Your task to perform on an android device: Empty the shopping cart on target. Add "razer blade" to the cart on target Image 0: 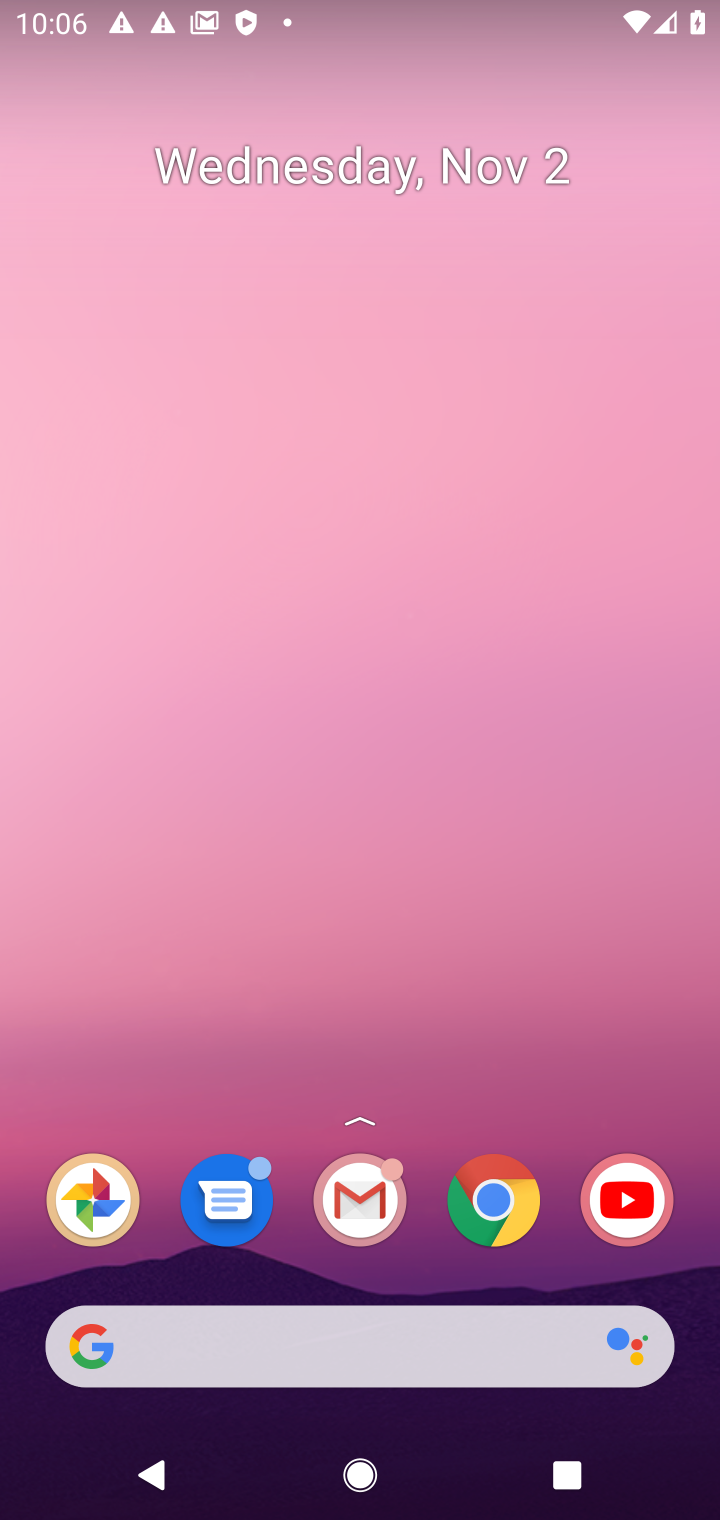
Step 0: click (495, 1189)
Your task to perform on an android device: Empty the shopping cart on target. Add "razer blade" to the cart on target Image 1: 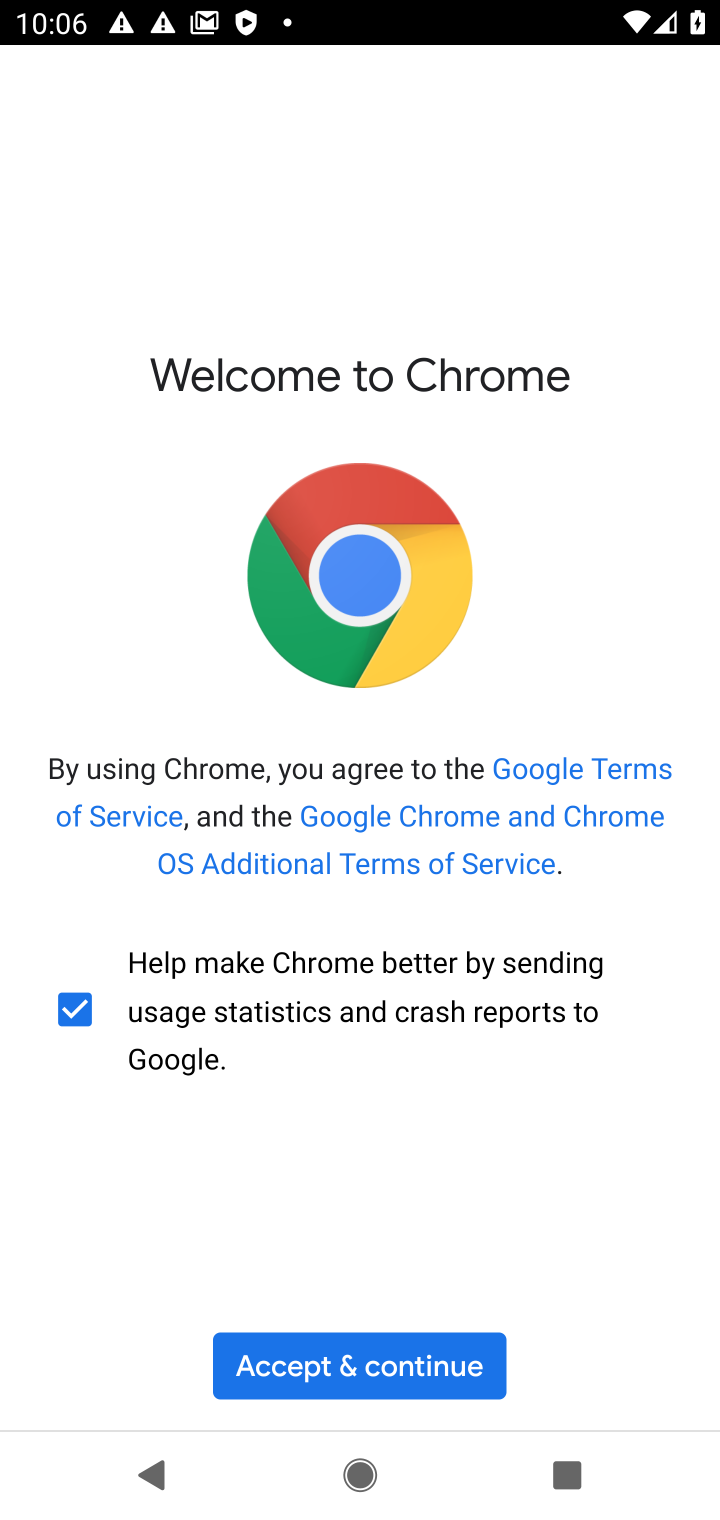
Step 1: click (409, 1367)
Your task to perform on an android device: Empty the shopping cart on target. Add "razer blade" to the cart on target Image 2: 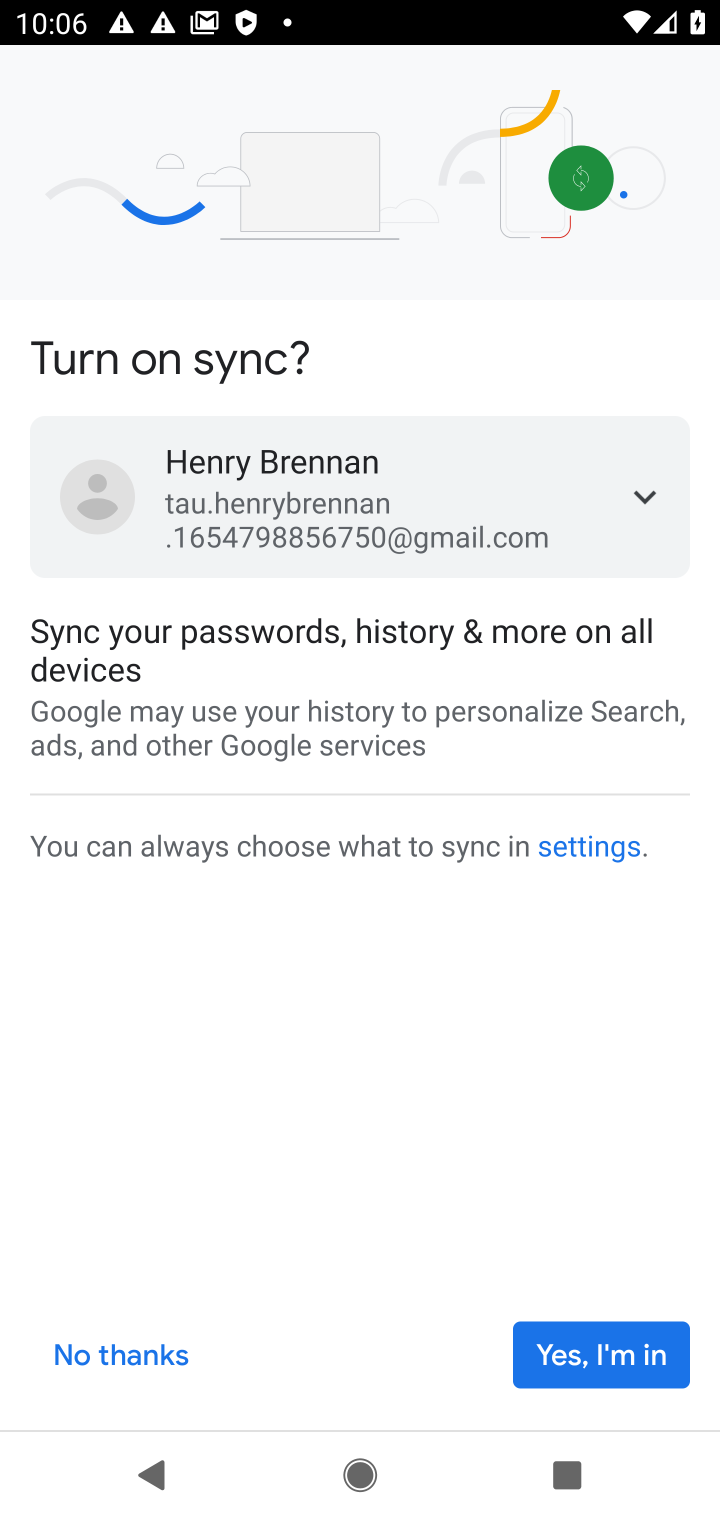
Step 2: click (612, 1344)
Your task to perform on an android device: Empty the shopping cart on target. Add "razer blade" to the cart on target Image 3: 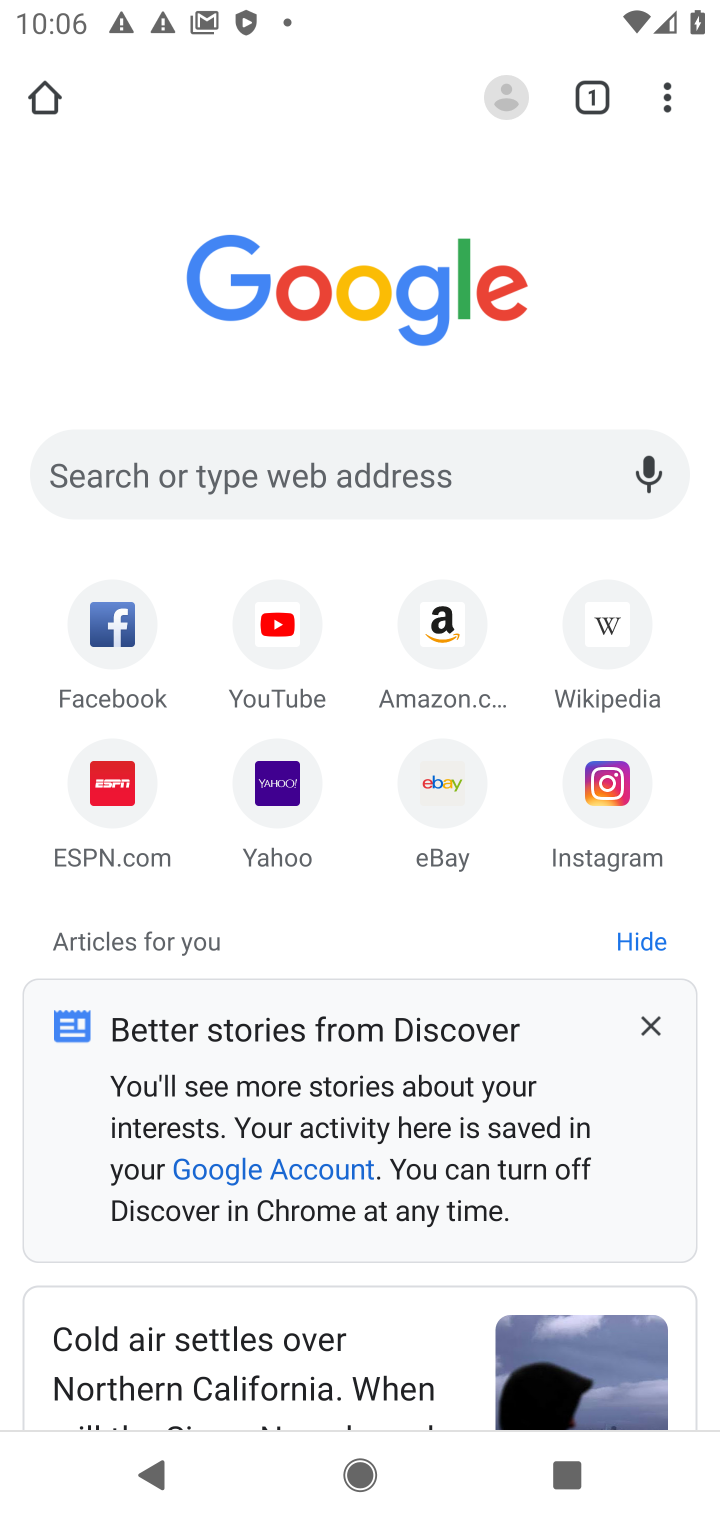
Step 3: click (291, 474)
Your task to perform on an android device: Empty the shopping cart on target. Add "razer blade" to the cart on target Image 4: 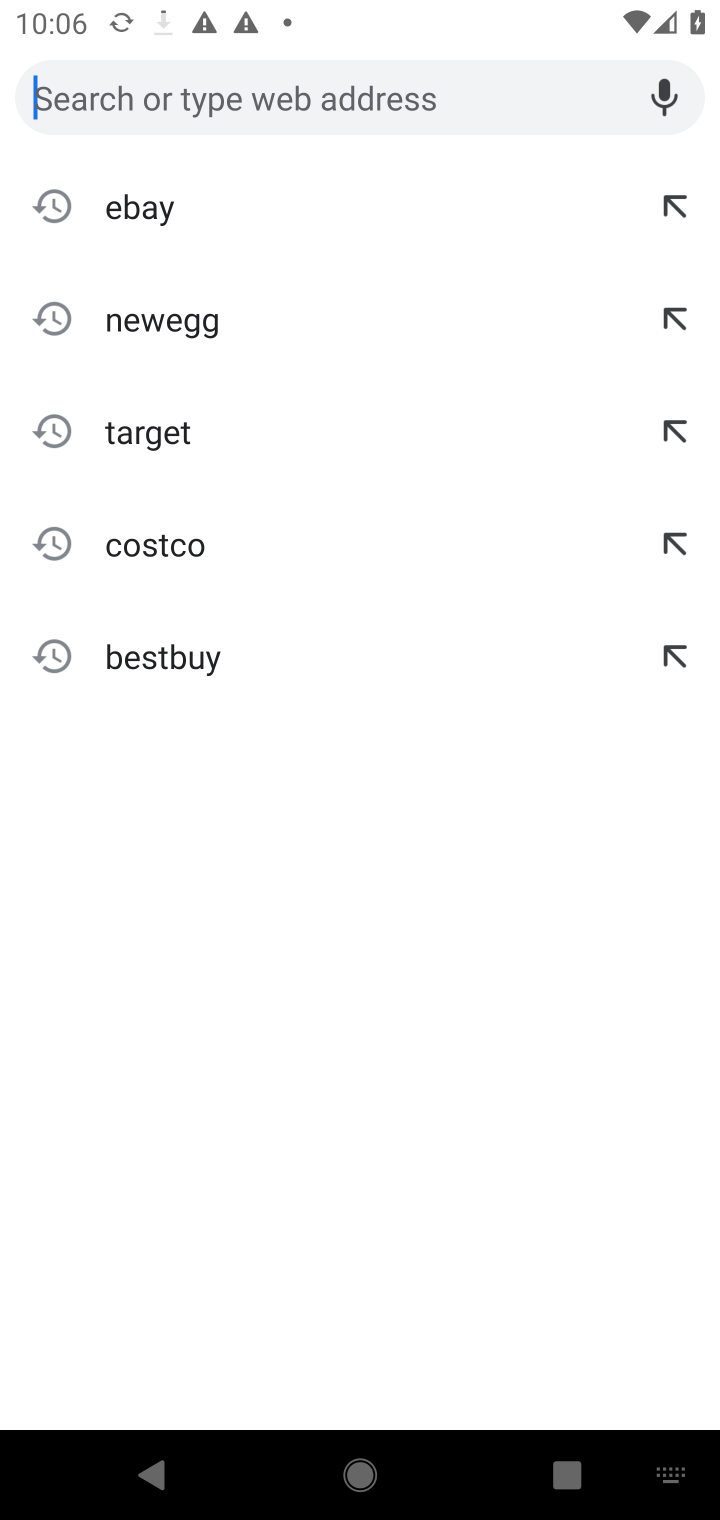
Step 4: click (178, 435)
Your task to perform on an android device: Empty the shopping cart on target. Add "razer blade" to the cart on target Image 5: 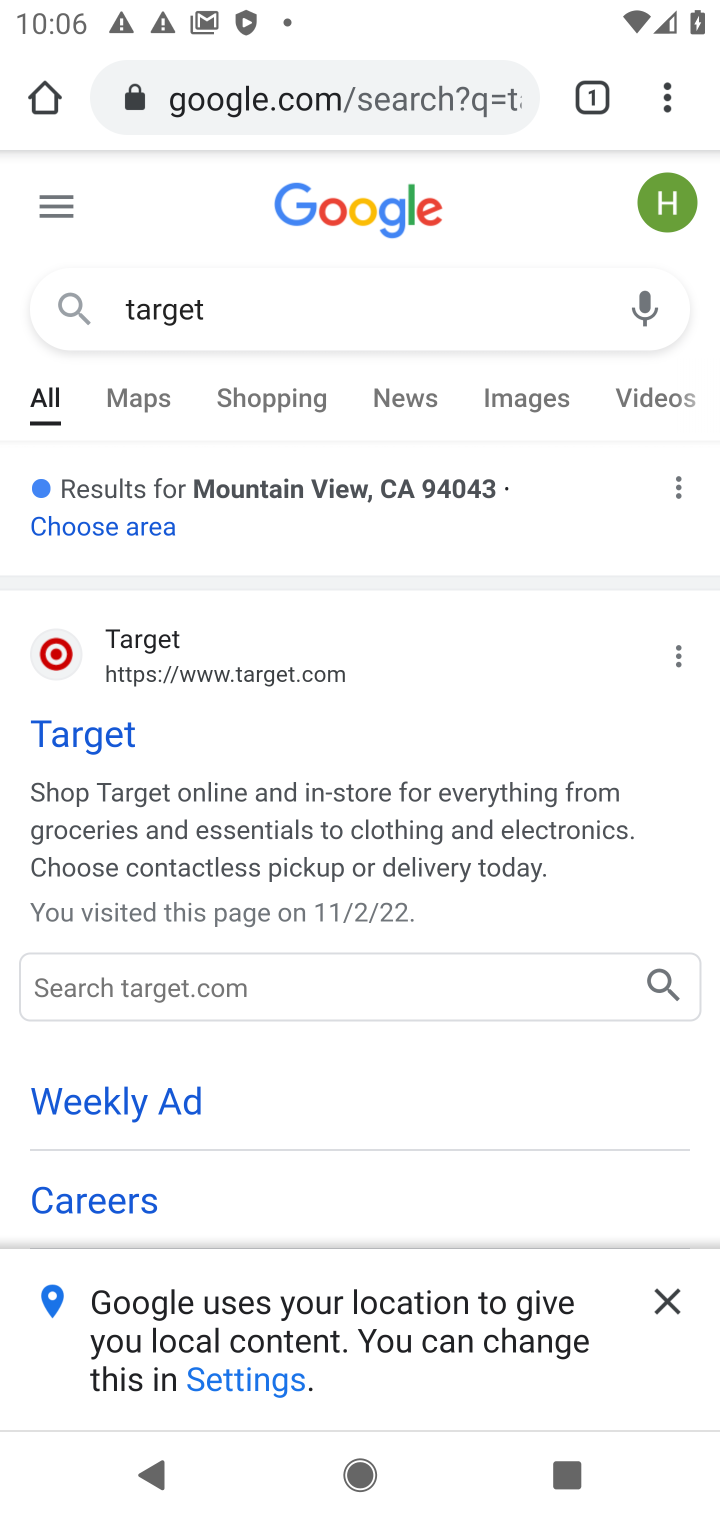
Step 5: click (157, 663)
Your task to perform on an android device: Empty the shopping cart on target. Add "razer blade" to the cart on target Image 6: 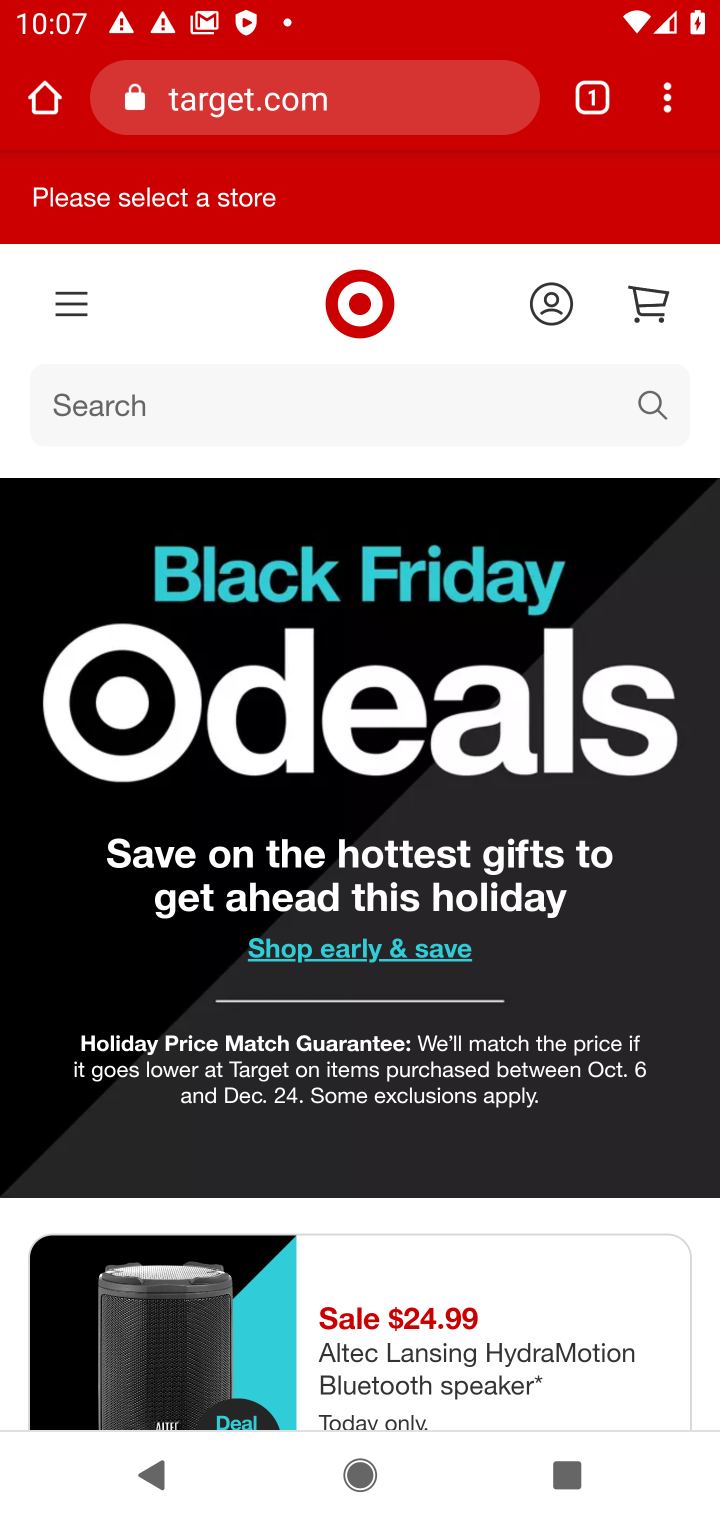
Step 6: click (643, 310)
Your task to perform on an android device: Empty the shopping cart on target. Add "razer blade" to the cart on target Image 7: 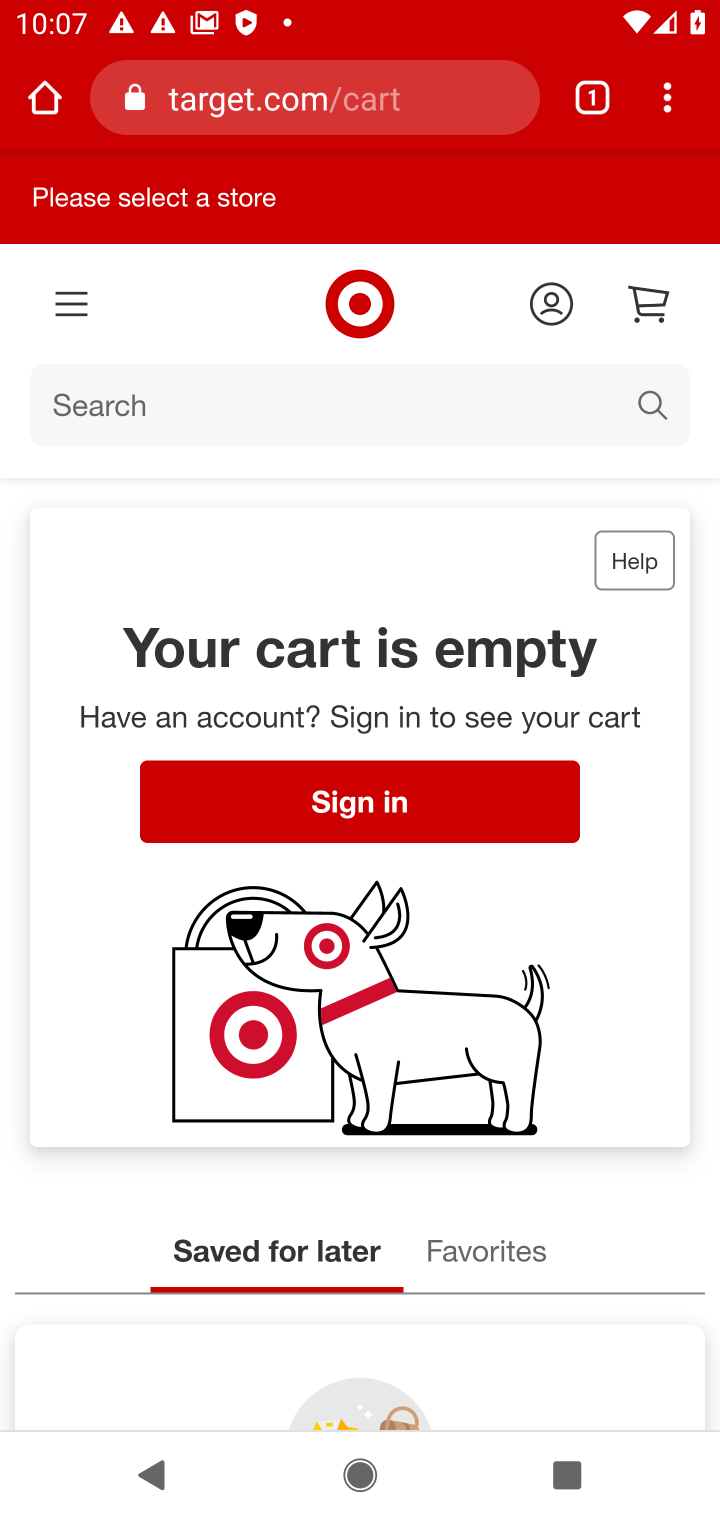
Step 7: click (375, 405)
Your task to perform on an android device: Empty the shopping cart on target. Add "razer blade" to the cart on target Image 8: 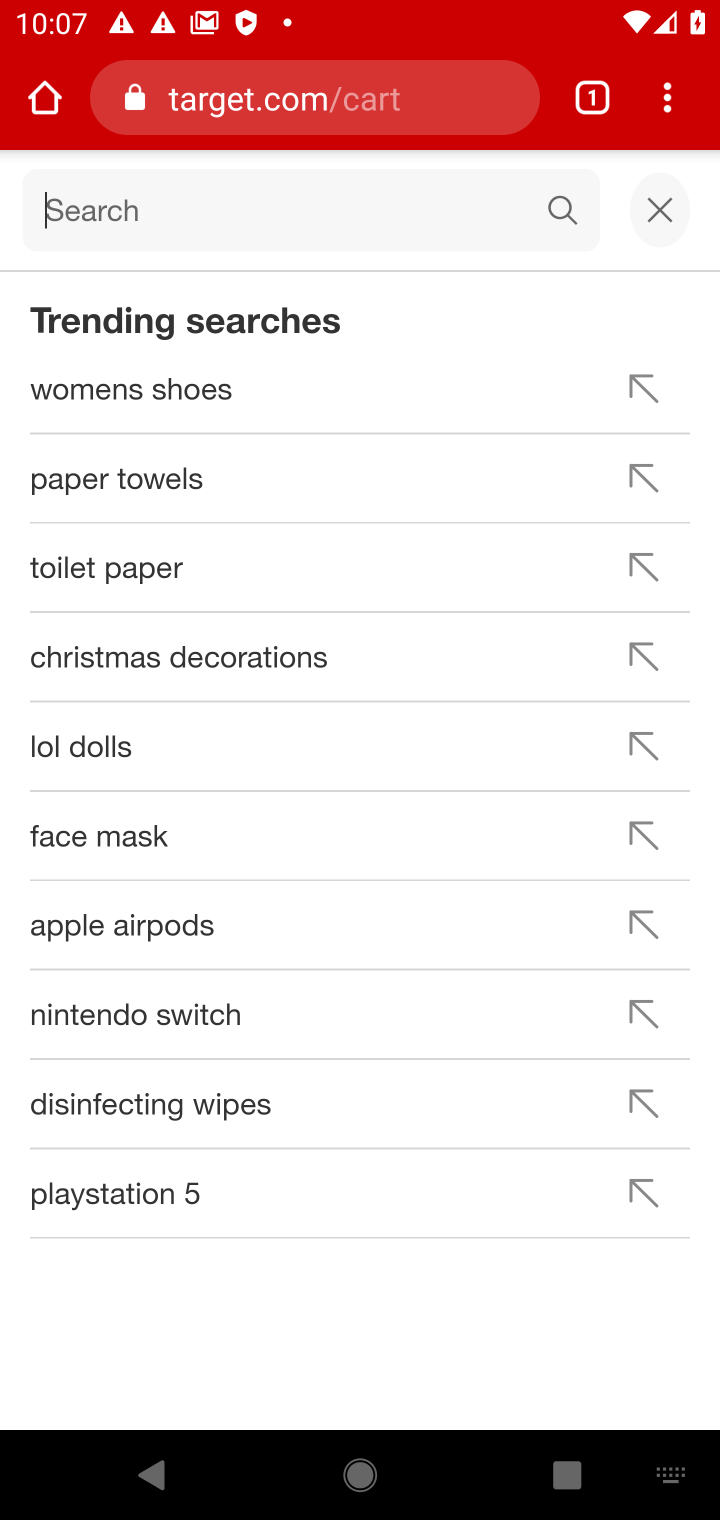
Step 8: type "razer blade"
Your task to perform on an android device: Empty the shopping cart on target. Add "razer blade" to the cart on target Image 9: 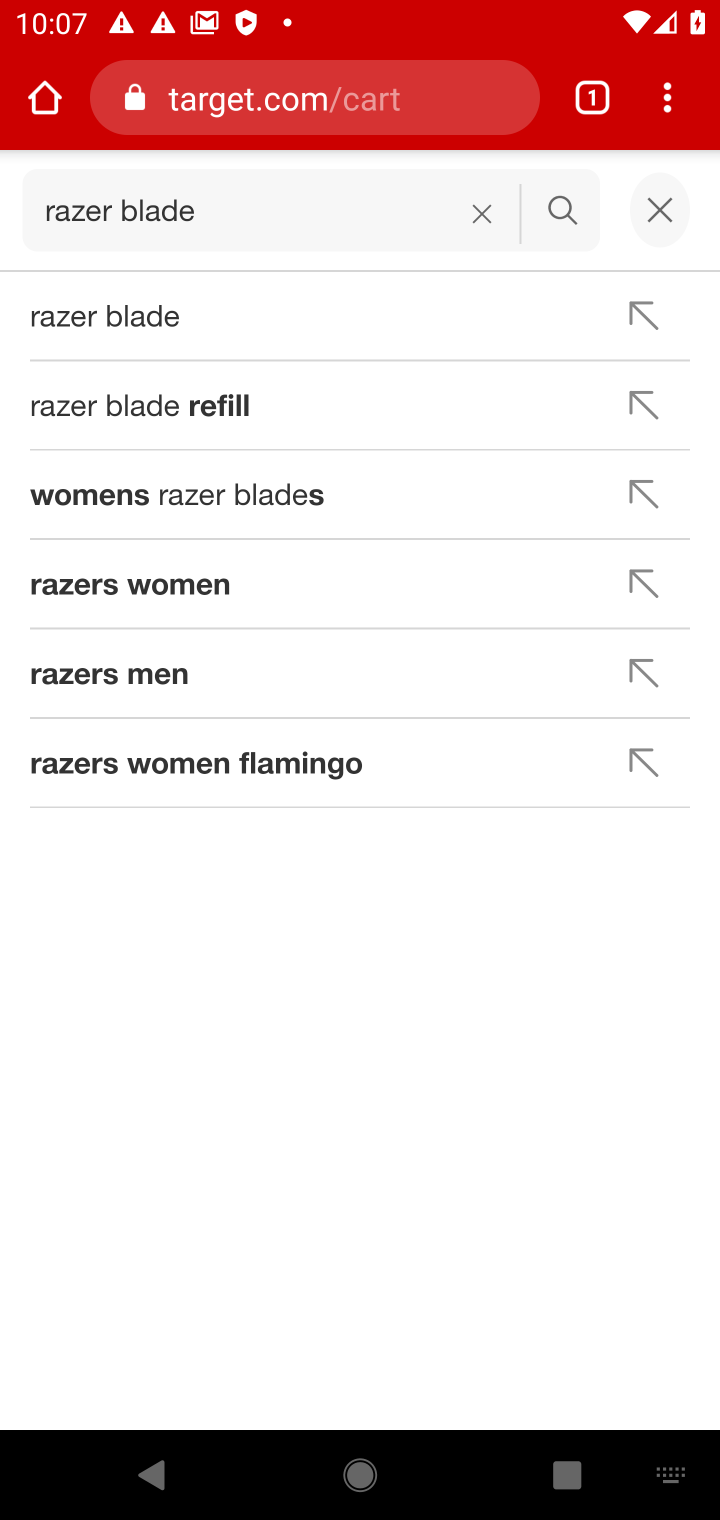
Step 9: click (165, 313)
Your task to perform on an android device: Empty the shopping cart on target. Add "razer blade" to the cart on target Image 10: 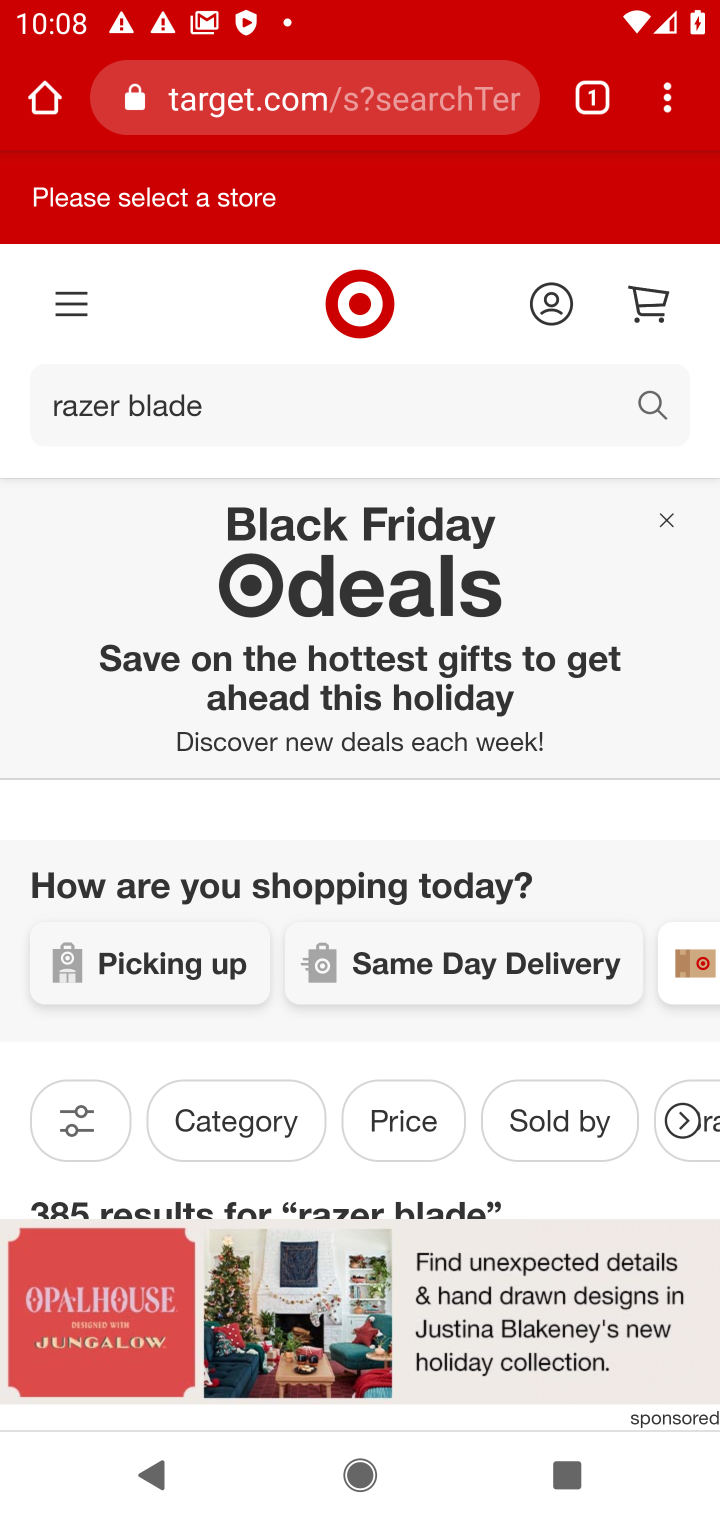
Step 10: drag from (490, 1047) to (538, 314)
Your task to perform on an android device: Empty the shopping cart on target. Add "razer blade" to the cart on target Image 11: 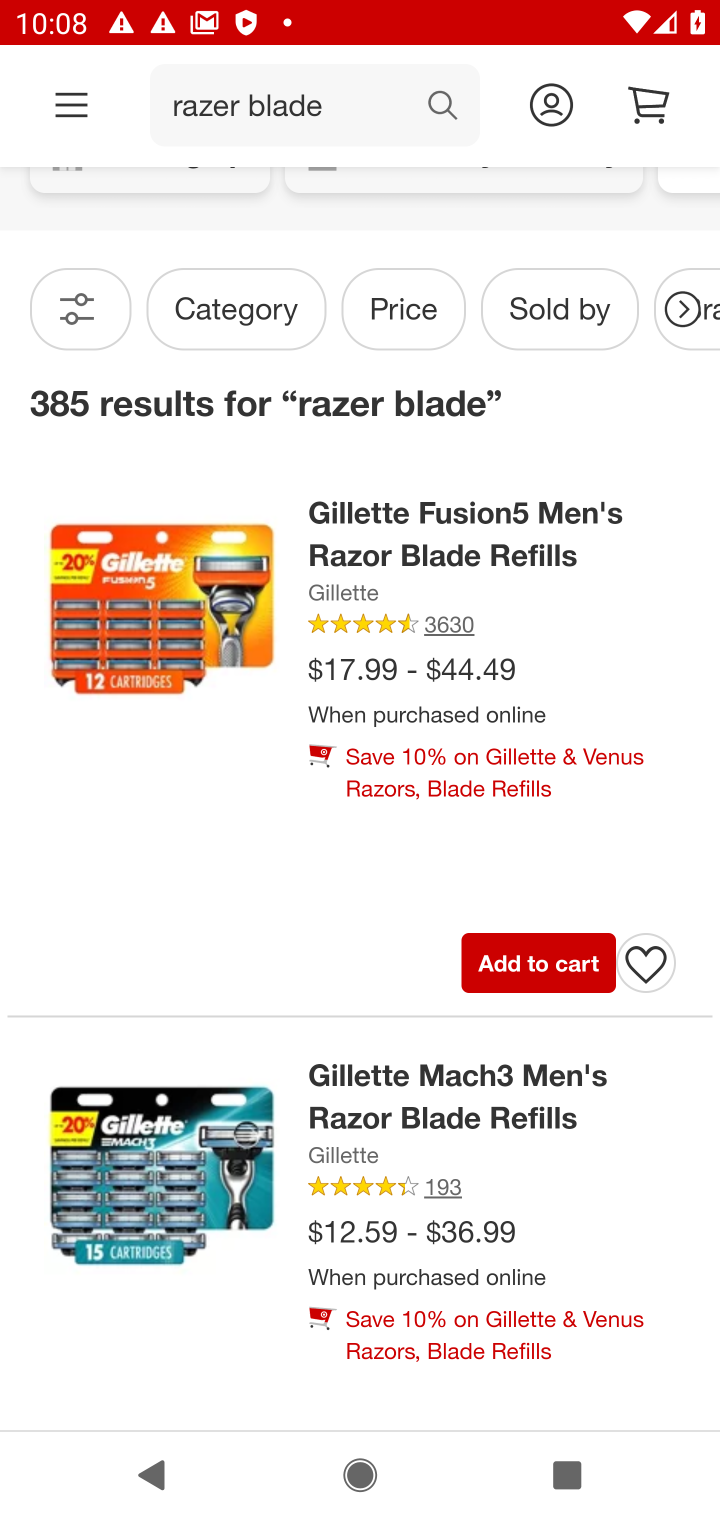
Step 11: click (134, 620)
Your task to perform on an android device: Empty the shopping cart on target. Add "razer blade" to the cart on target Image 12: 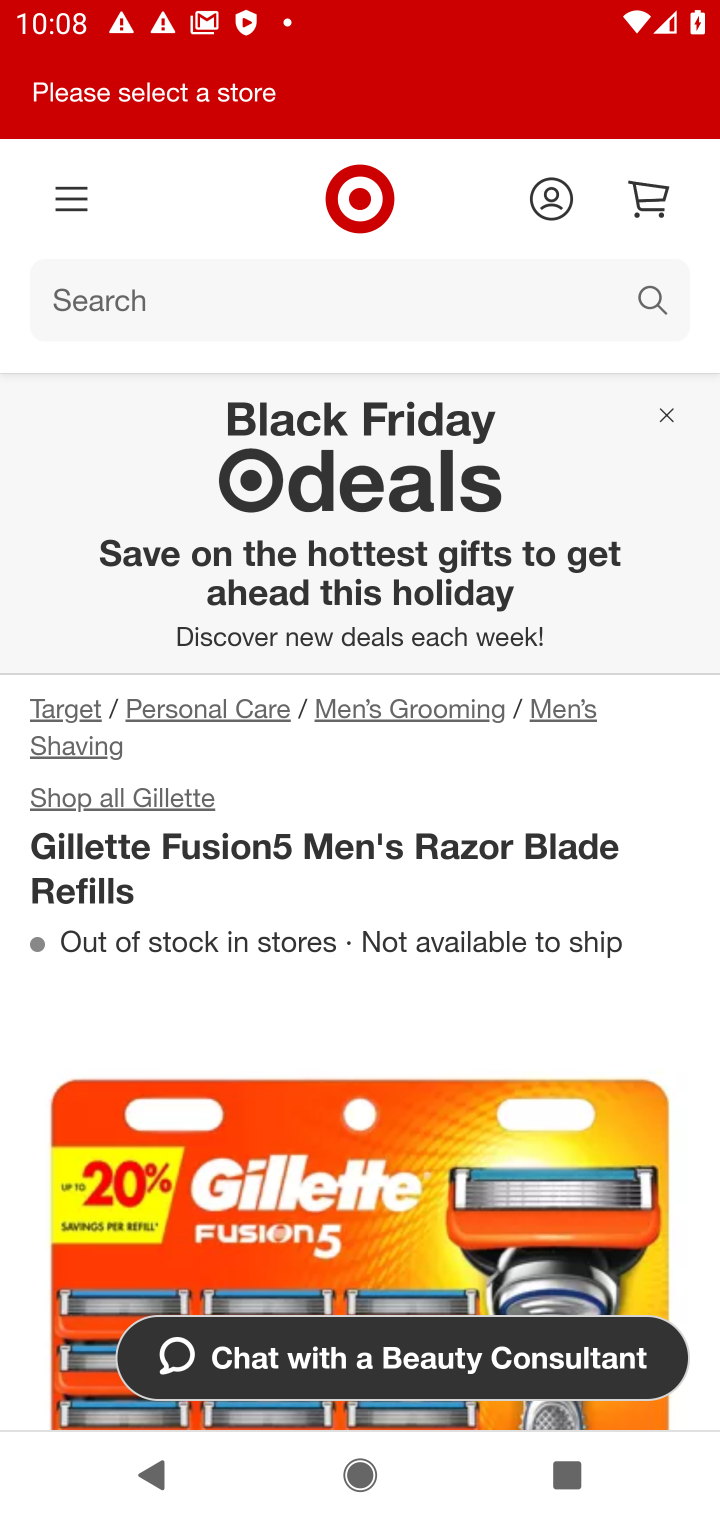
Step 12: drag from (502, 1081) to (511, 287)
Your task to perform on an android device: Empty the shopping cart on target. Add "razer blade" to the cart on target Image 13: 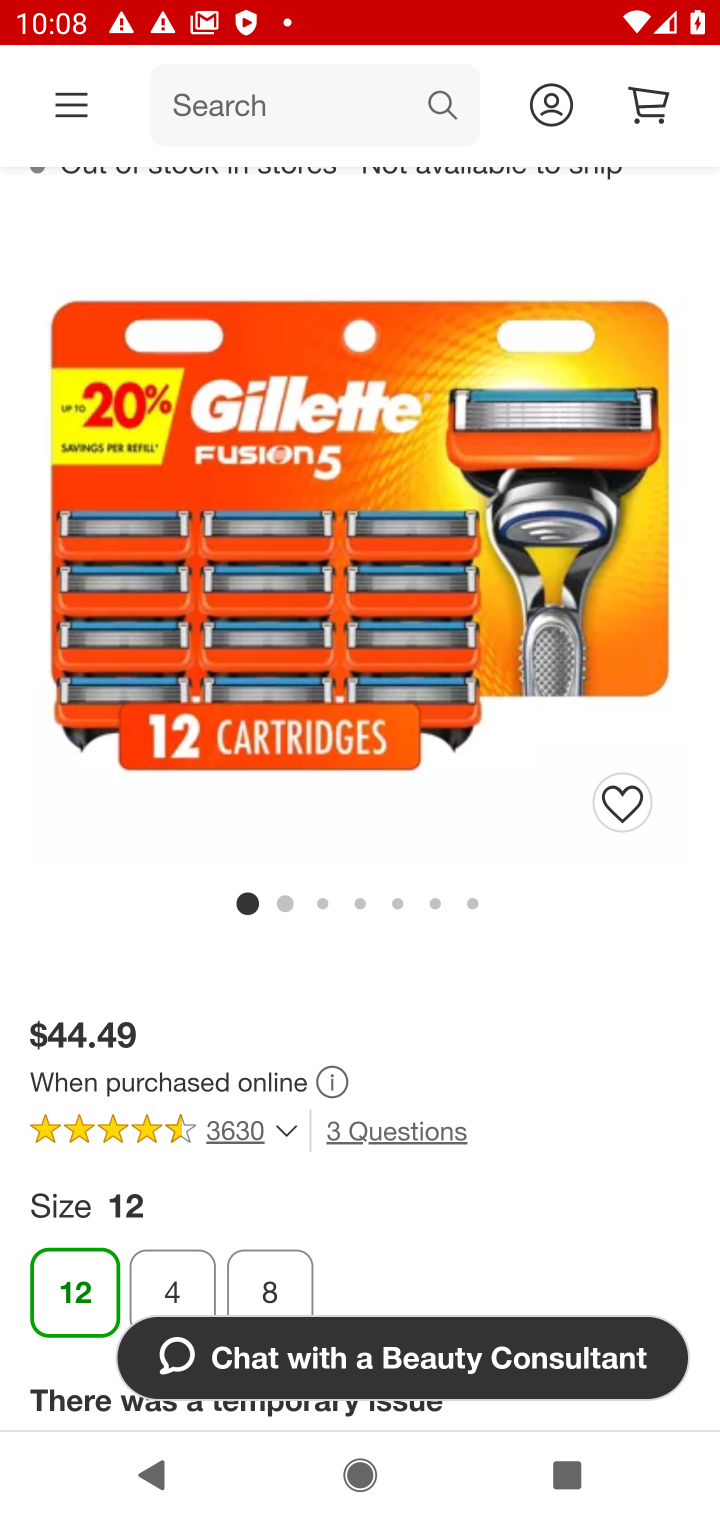
Step 13: drag from (461, 1019) to (566, 376)
Your task to perform on an android device: Empty the shopping cart on target. Add "razer blade" to the cart on target Image 14: 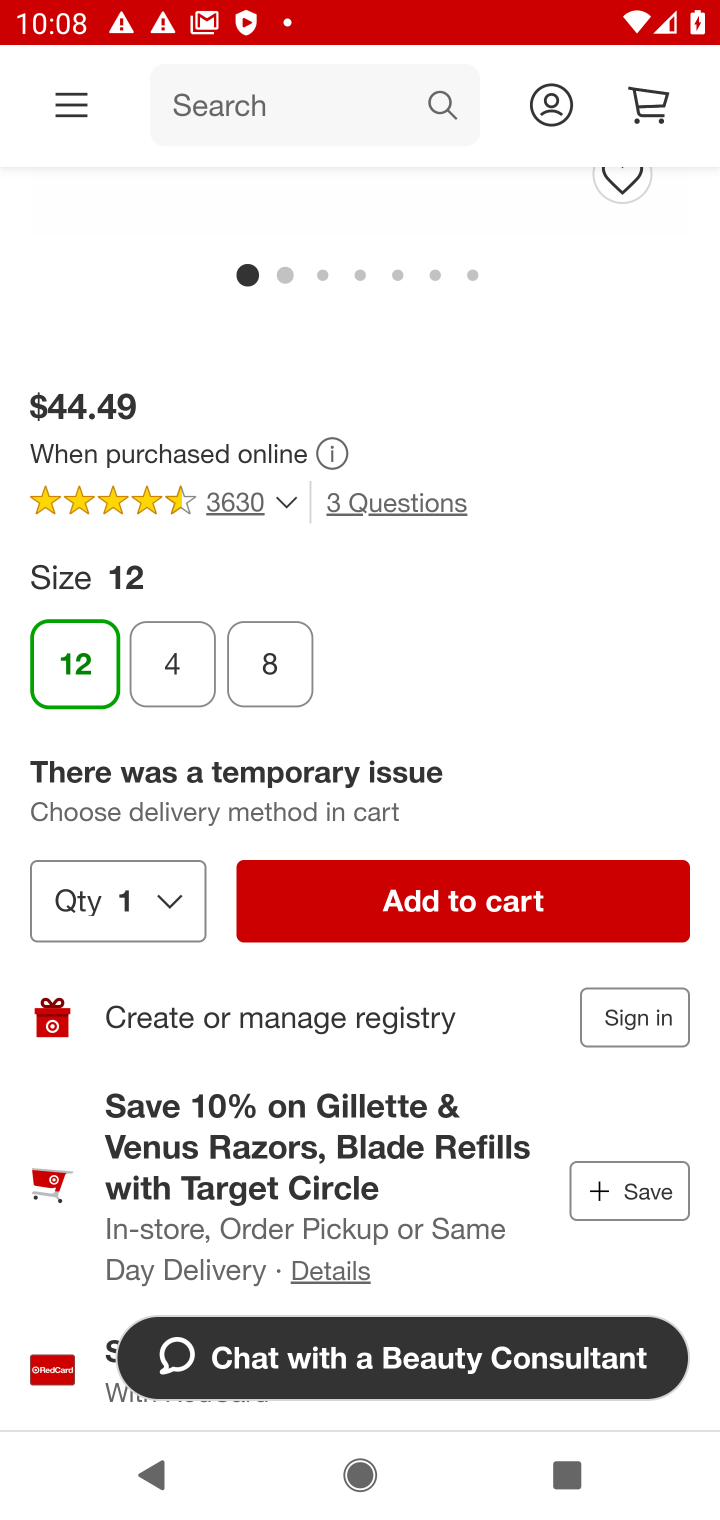
Step 14: click (547, 894)
Your task to perform on an android device: Empty the shopping cart on target. Add "razer blade" to the cart on target Image 15: 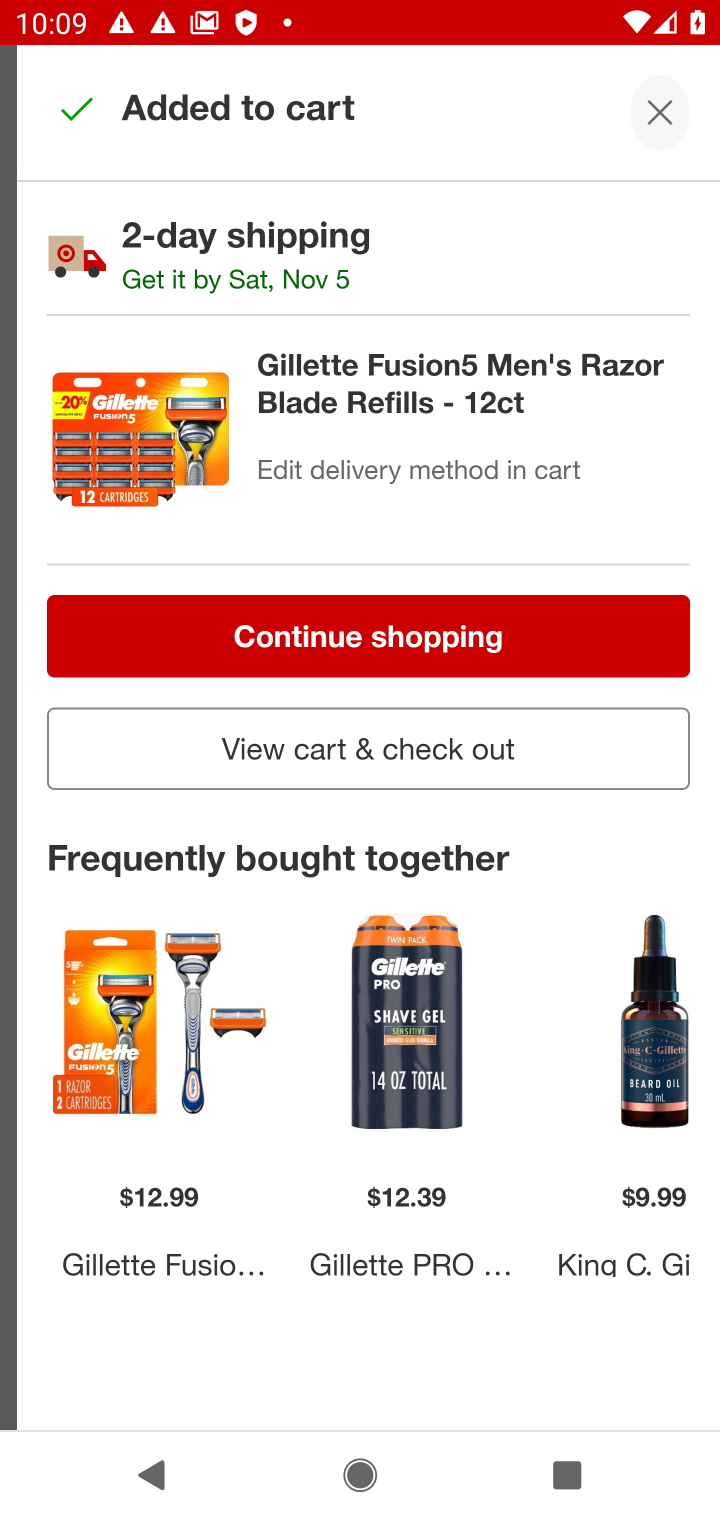
Step 15: task complete